Your task to perform on an android device: Go to Maps Image 0: 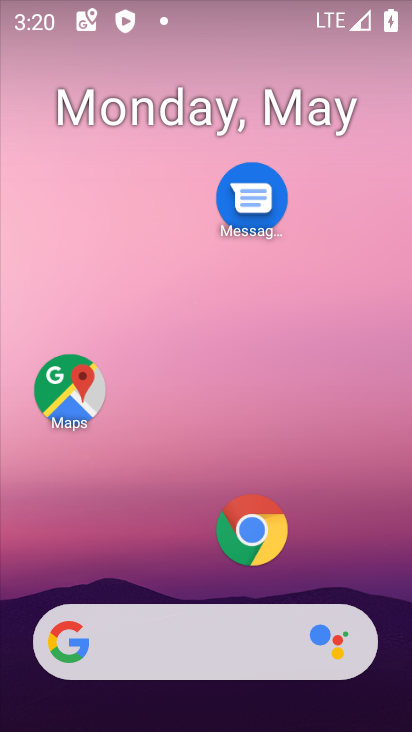
Step 0: click (81, 372)
Your task to perform on an android device: Go to Maps Image 1: 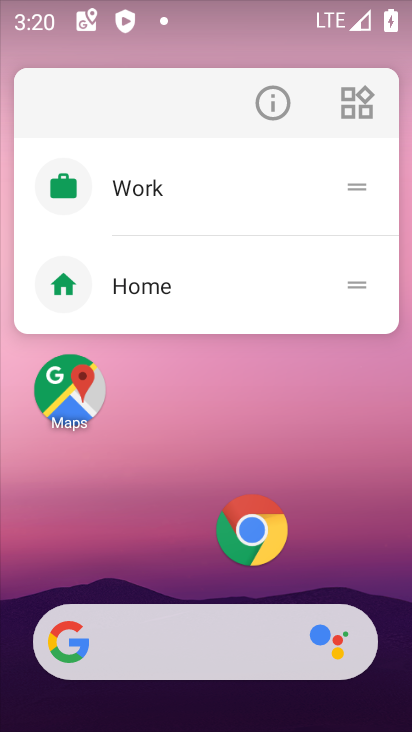
Step 1: click (71, 387)
Your task to perform on an android device: Go to Maps Image 2: 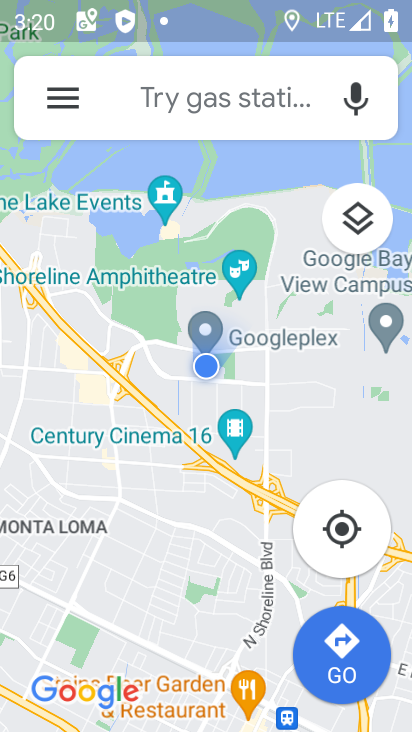
Step 2: task complete